Your task to perform on an android device: Show the shopping cart on amazon. Image 0: 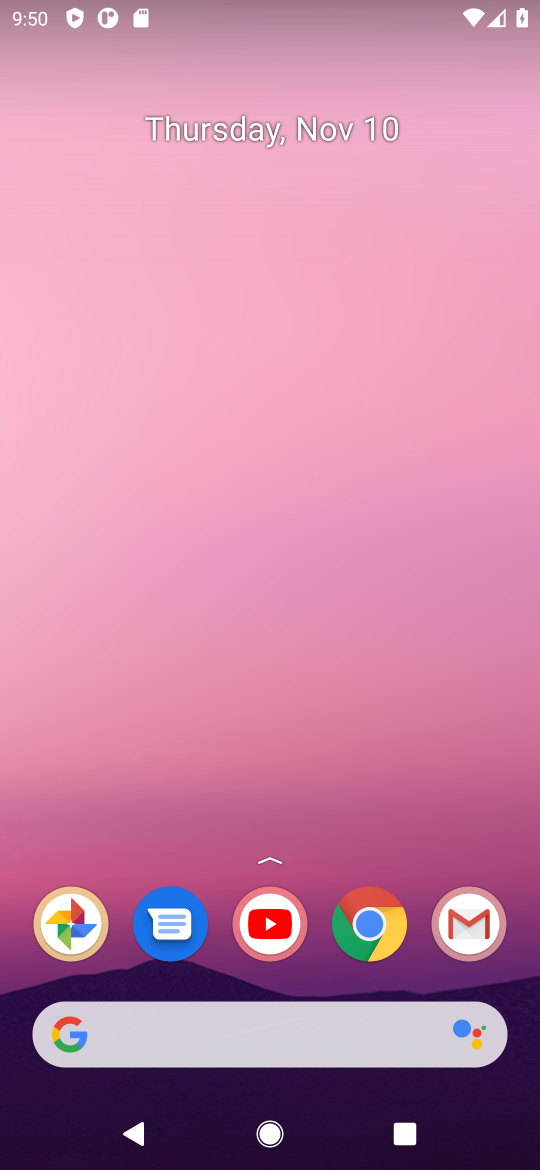
Step 0: click (368, 924)
Your task to perform on an android device: Show the shopping cart on amazon. Image 1: 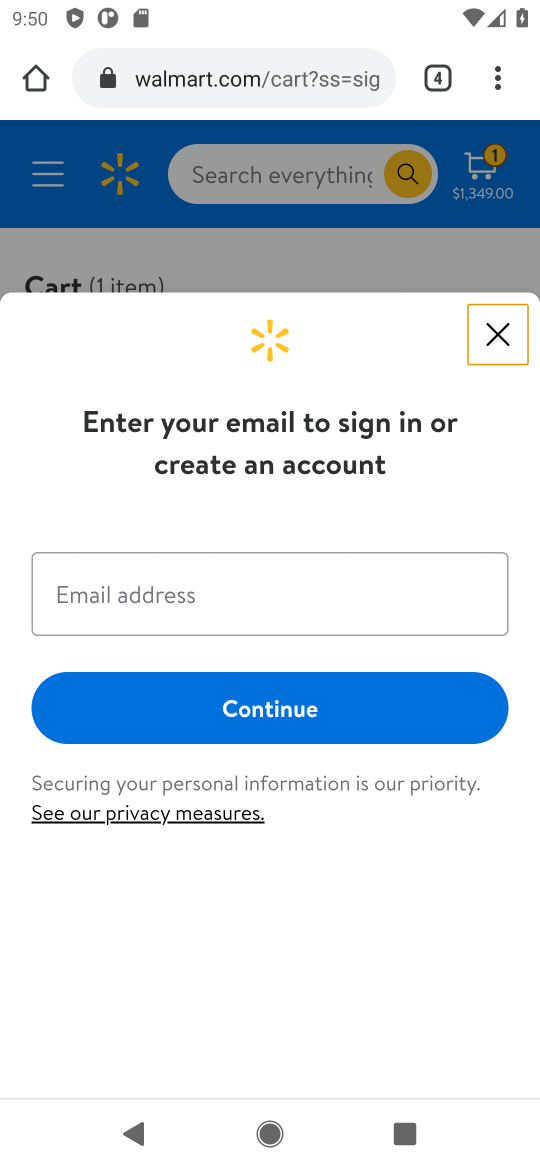
Step 1: click (247, 97)
Your task to perform on an android device: Show the shopping cart on amazon. Image 2: 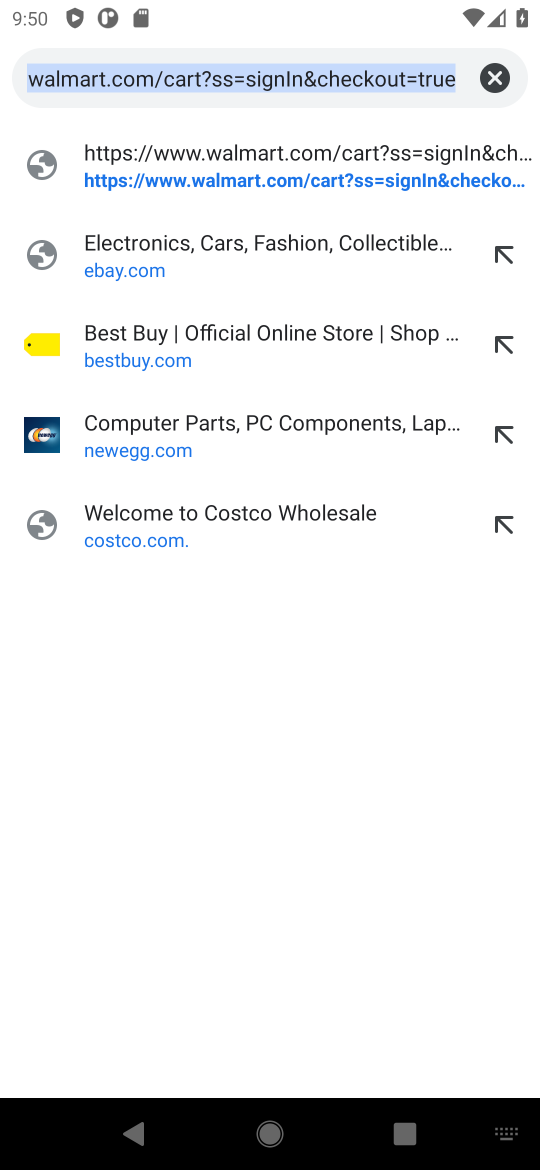
Step 2: type "amazon.com"
Your task to perform on an android device: Show the shopping cart on amazon. Image 3: 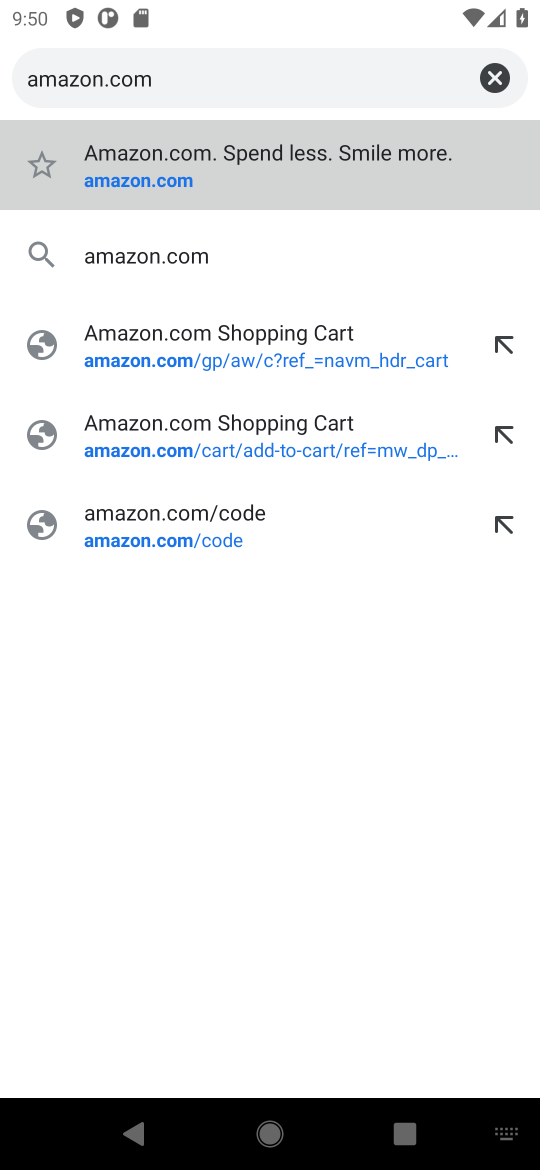
Step 3: click (137, 167)
Your task to perform on an android device: Show the shopping cart on amazon. Image 4: 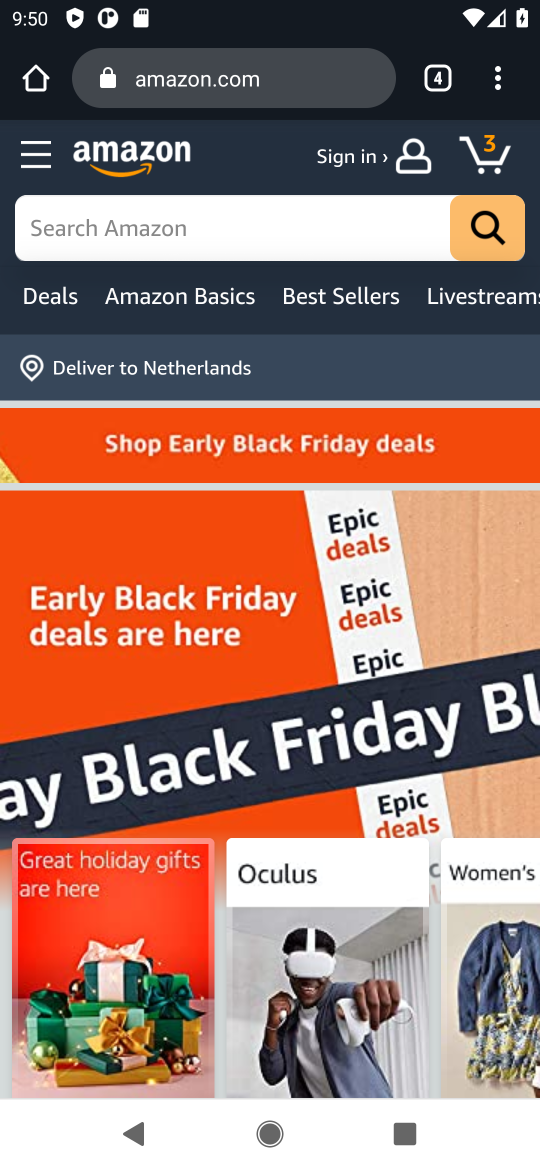
Step 4: click (480, 163)
Your task to perform on an android device: Show the shopping cart on amazon. Image 5: 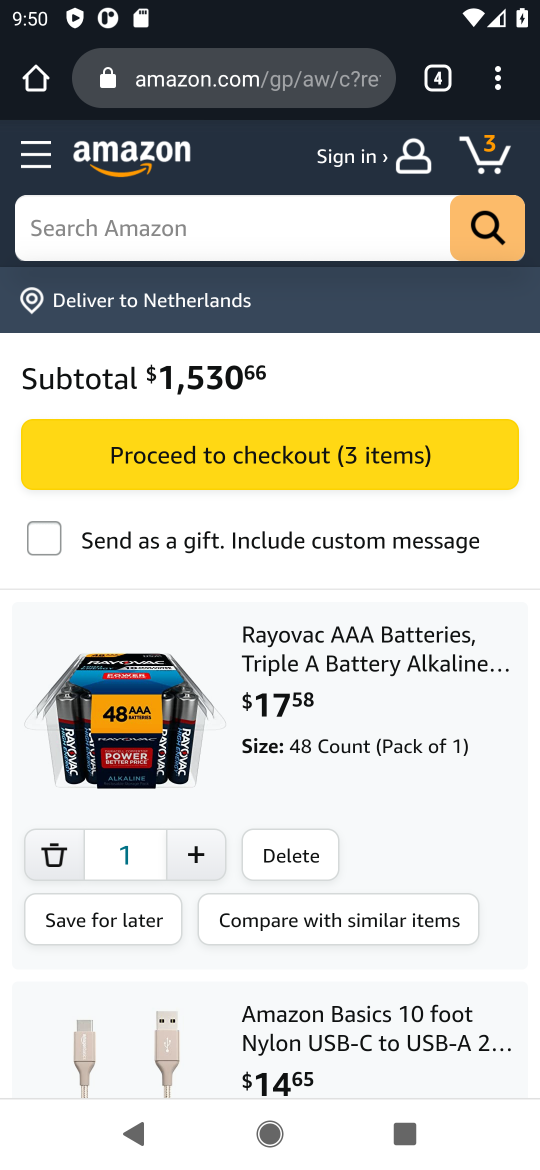
Step 5: task complete